Your task to perform on an android device: Go to calendar. Show me events next week Image 0: 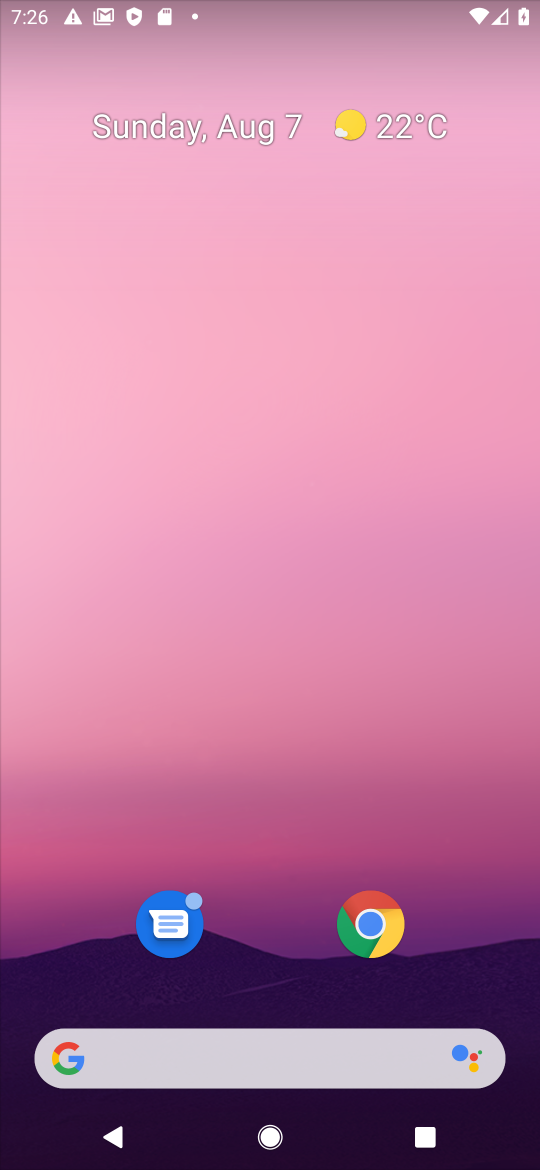
Step 0: drag from (289, 846) to (260, 33)
Your task to perform on an android device: Go to calendar. Show me events next week Image 1: 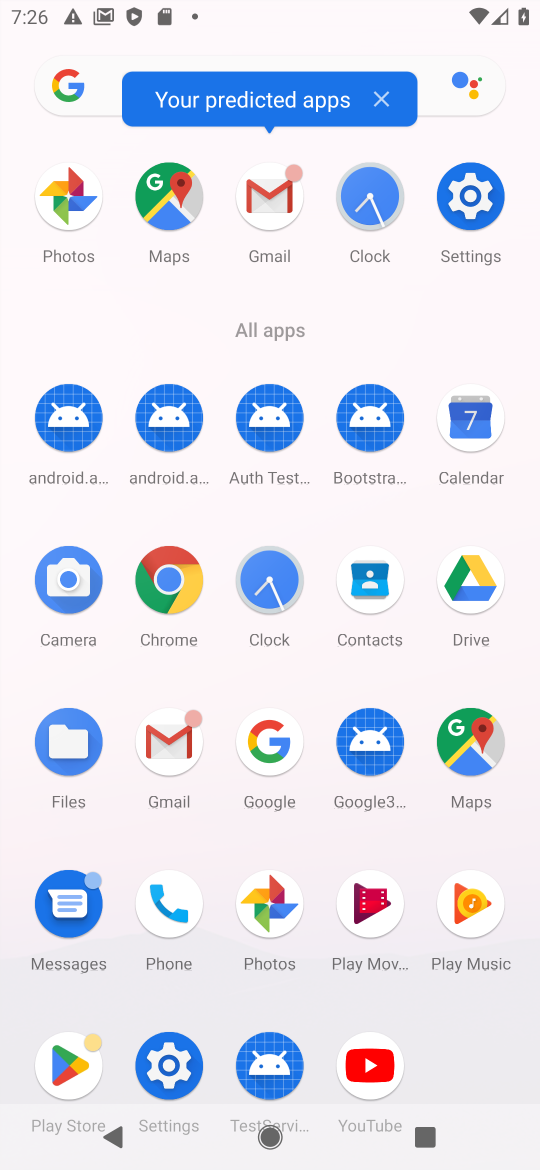
Step 1: click (477, 420)
Your task to perform on an android device: Go to calendar. Show me events next week Image 2: 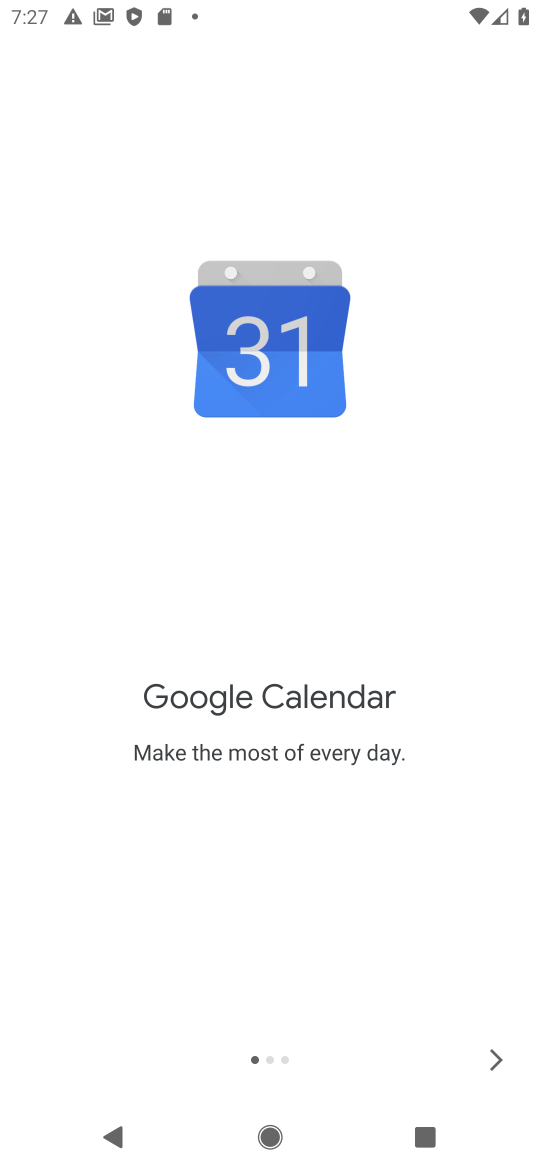
Step 2: click (497, 1054)
Your task to perform on an android device: Go to calendar. Show me events next week Image 3: 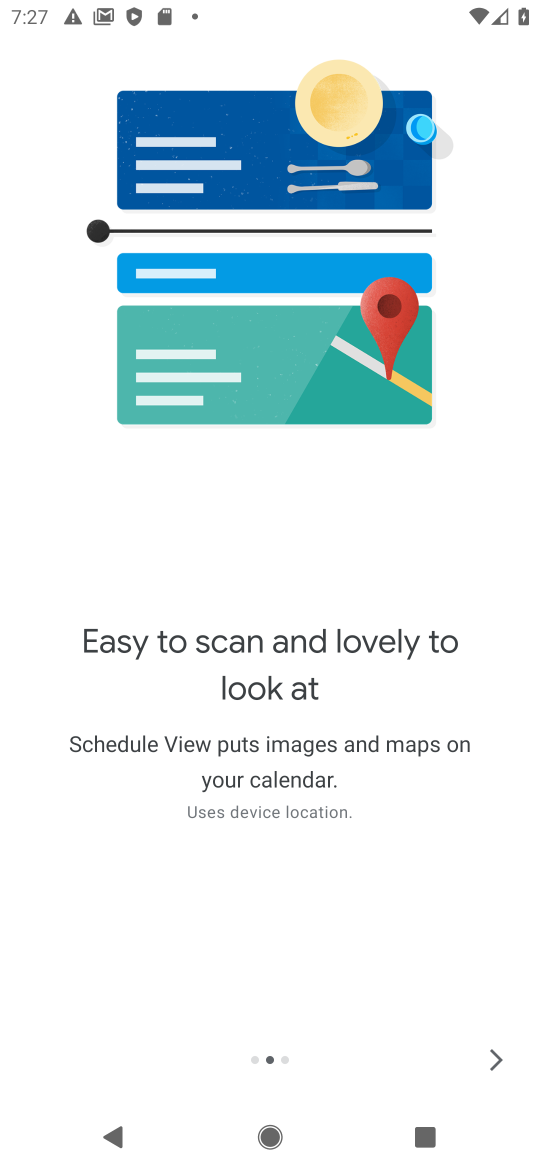
Step 3: click (495, 1054)
Your task to perform on an android device: Go to calendar. Show me events next week Image 4: 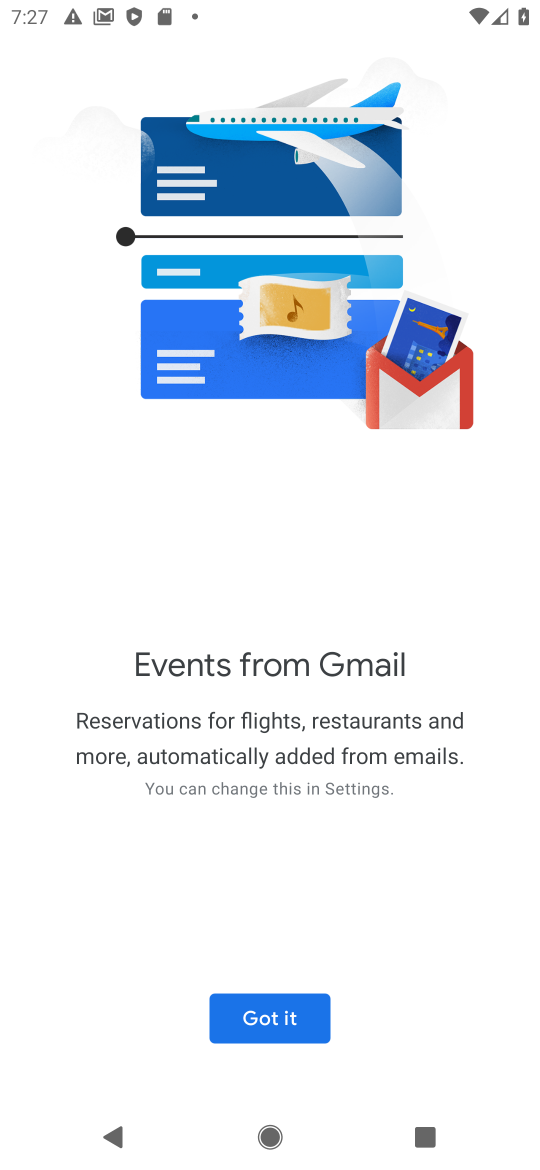
Step 4: click (311, 1031)
Your task to perform on an android device: Go to calendar. Show me events next week Image 5: 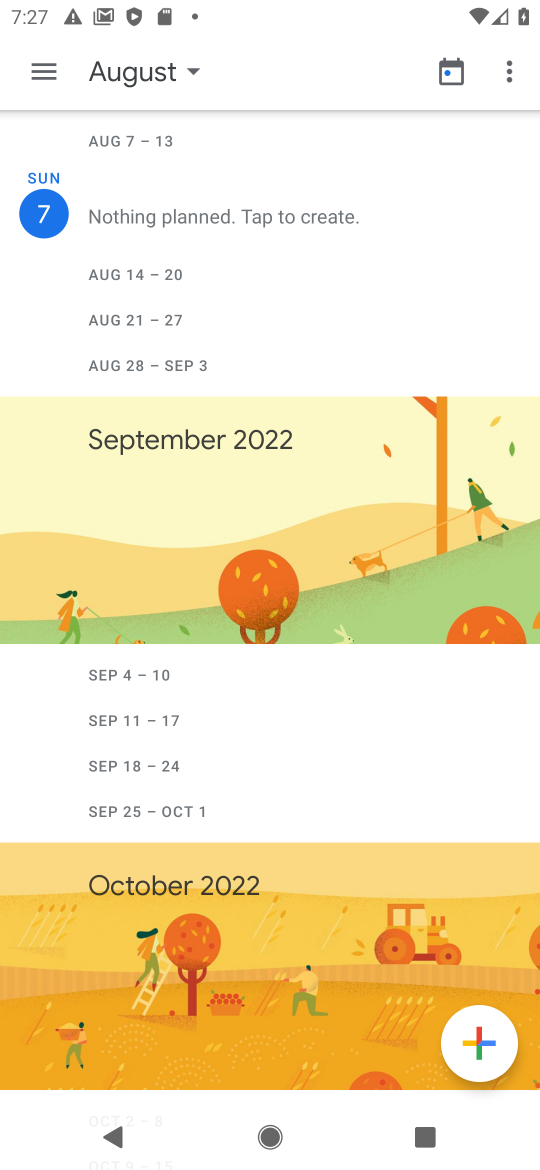
Step 5: click (52, 73)
Your task to perform on an android device: Go to calendar. Show me events next week Image 6: 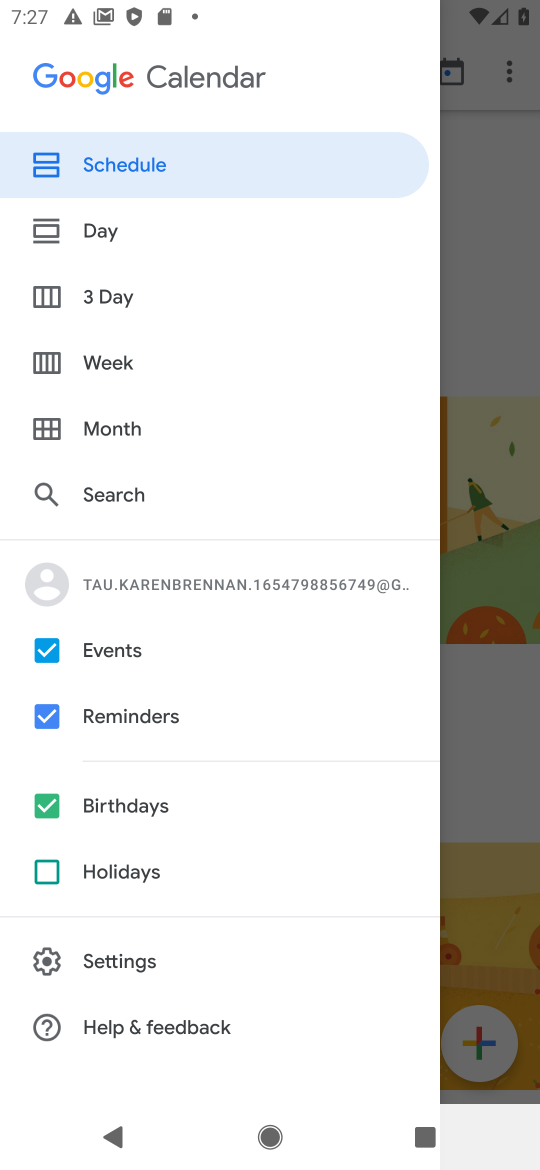
Step 6: click (54, 359)
Your task to perform on an android device: Go to calendar. Show me events next week Image 7: 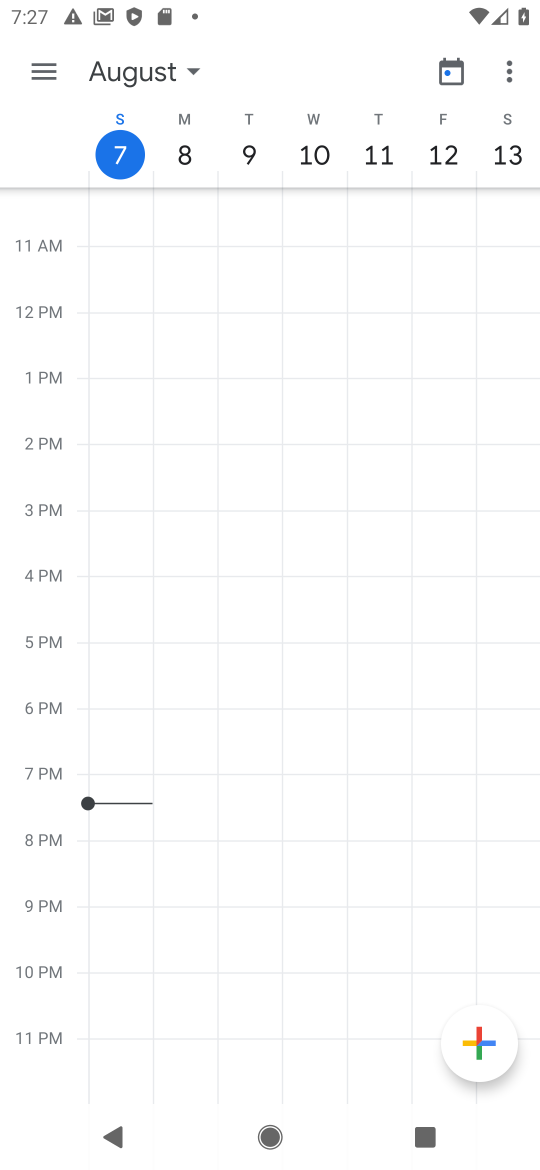
Step 7: task complete